Your task to perform on an android device: change the clock style Image 0: 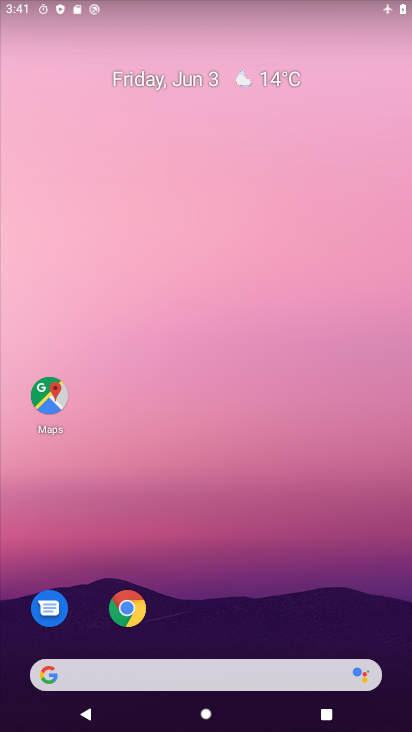
Step 0: drag from (182, 648) to (196, 302)
Your task to perform on an android device: change the clock style Image 1: 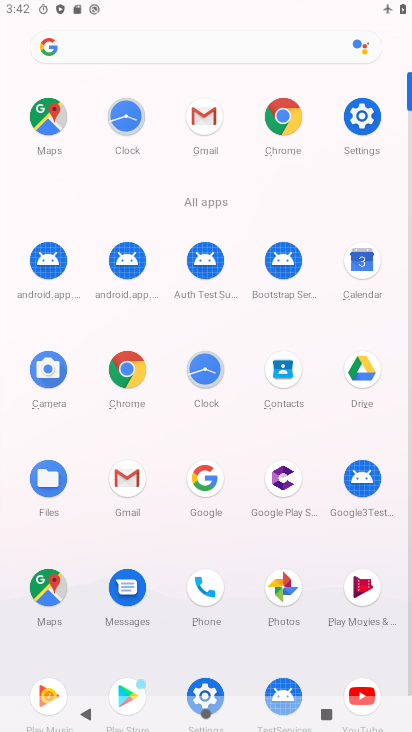
Step 1: click (216, 368)
Your task to perform on an android device: change the clock style Image 2: 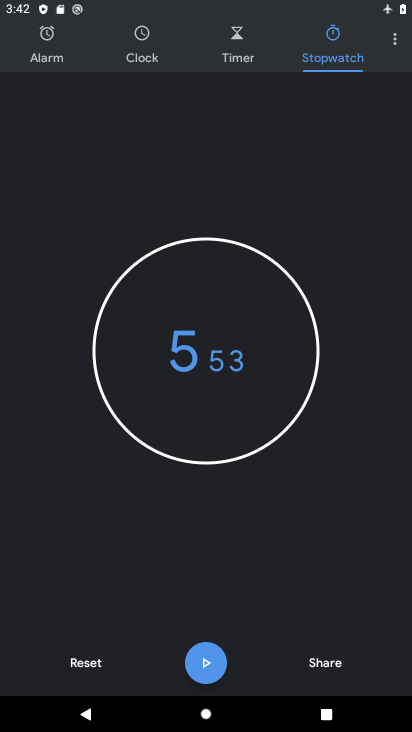
Step 2: click (392, 36)
Your task to perform on an android device: change the clock style Image 3: 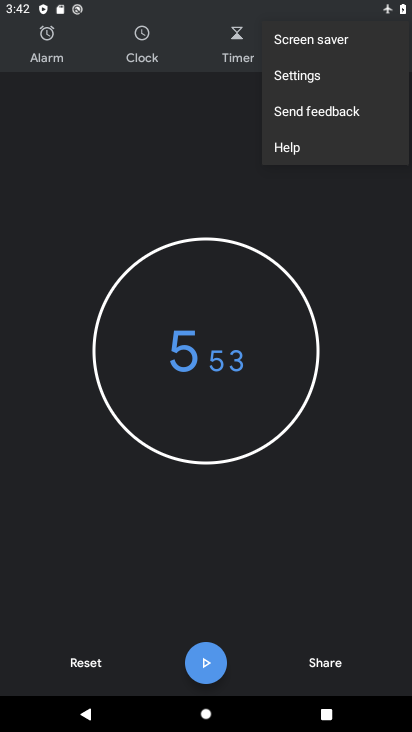
Step 3: click (306, 71)
Your task to perform on an android device: change the clock style Image 4: 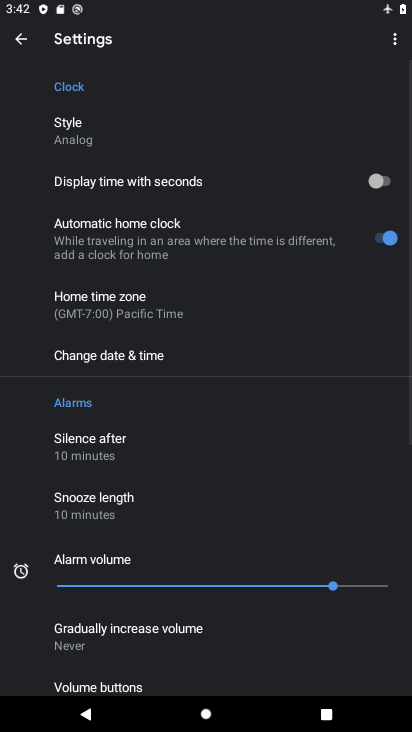
Step 4: click (94, 133)
Your task to perform on an android device: change the clock style Image 5: 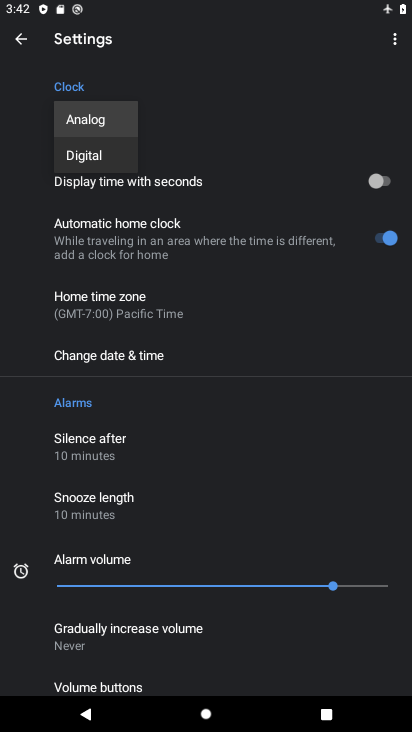
Step 5: click (97, 160)
Your task to perform on an android device: change the clock style Image 6: 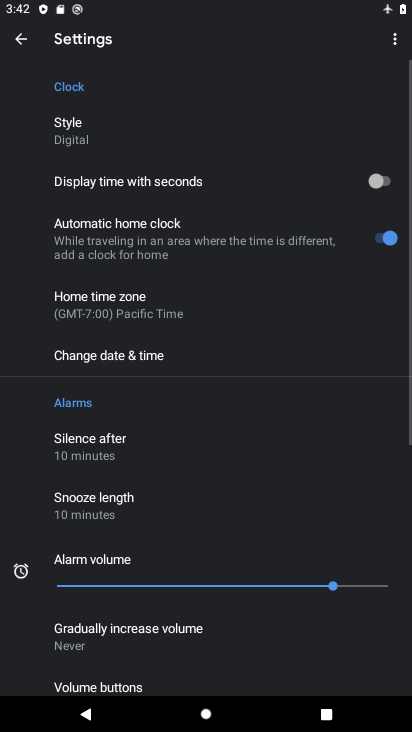
Step 6: task complete